Your task to perform on an android device: open app "Reddit" Image 0: 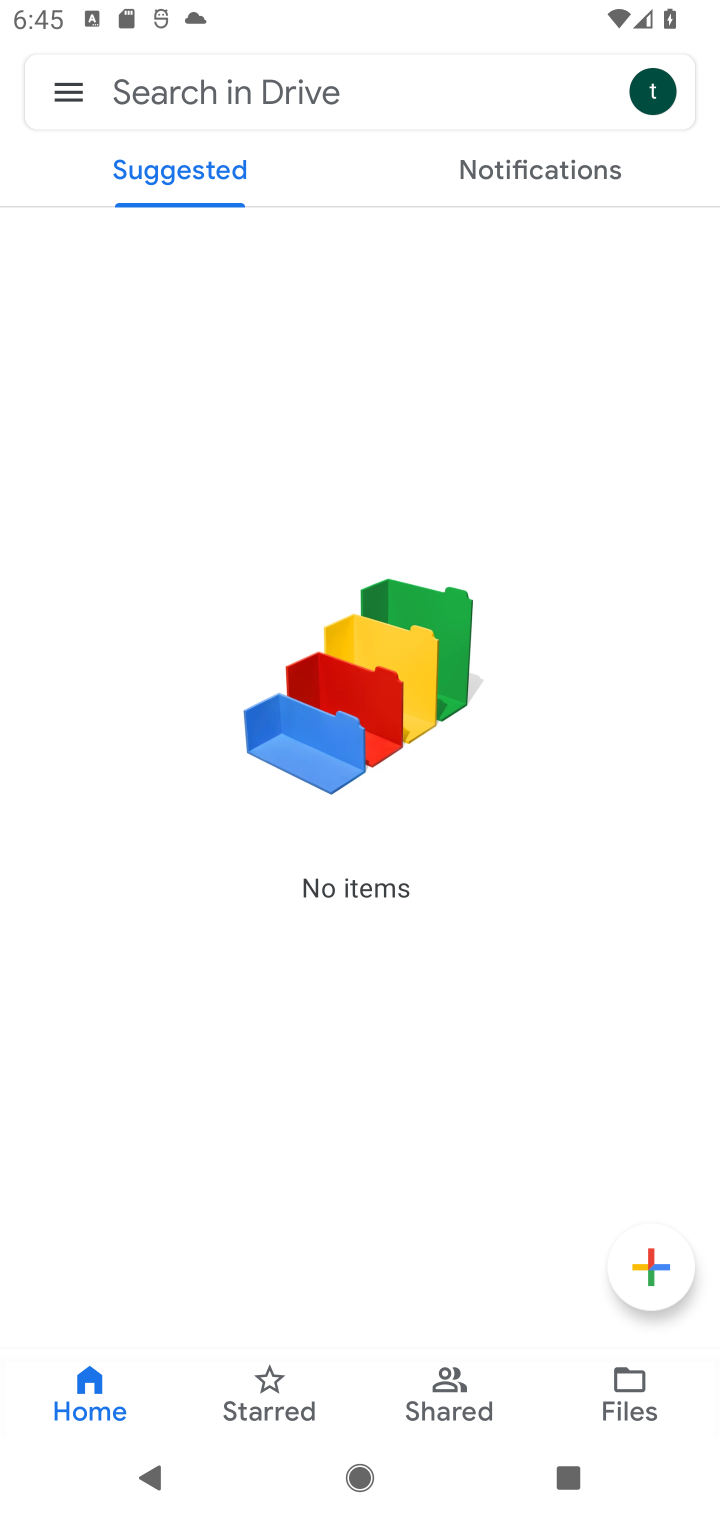
Step 0: press home button
Your task to perform on an android device: open app "Reddit" Image 1: 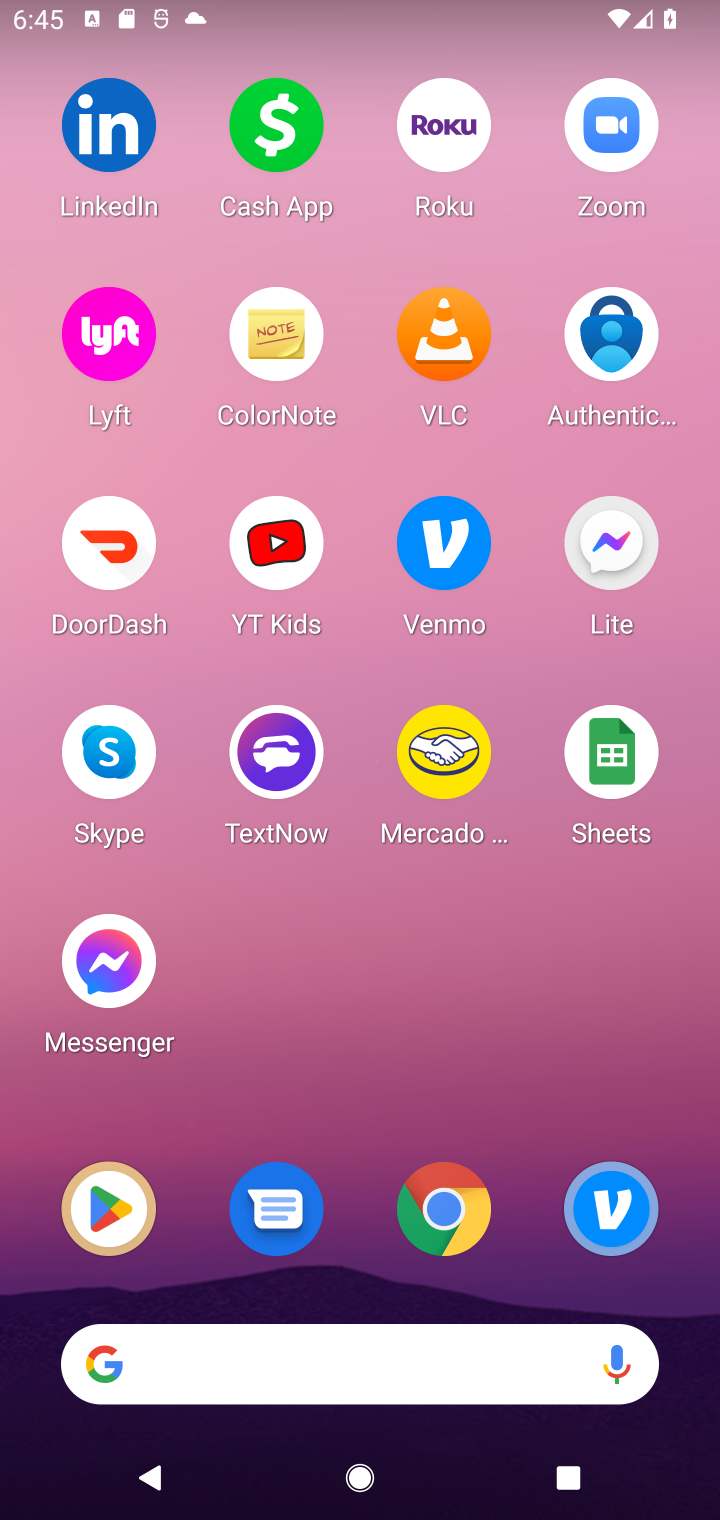
Step 1: click (103, 1196)
Your task to perform on an android device: open app "Reddit" Image 2: 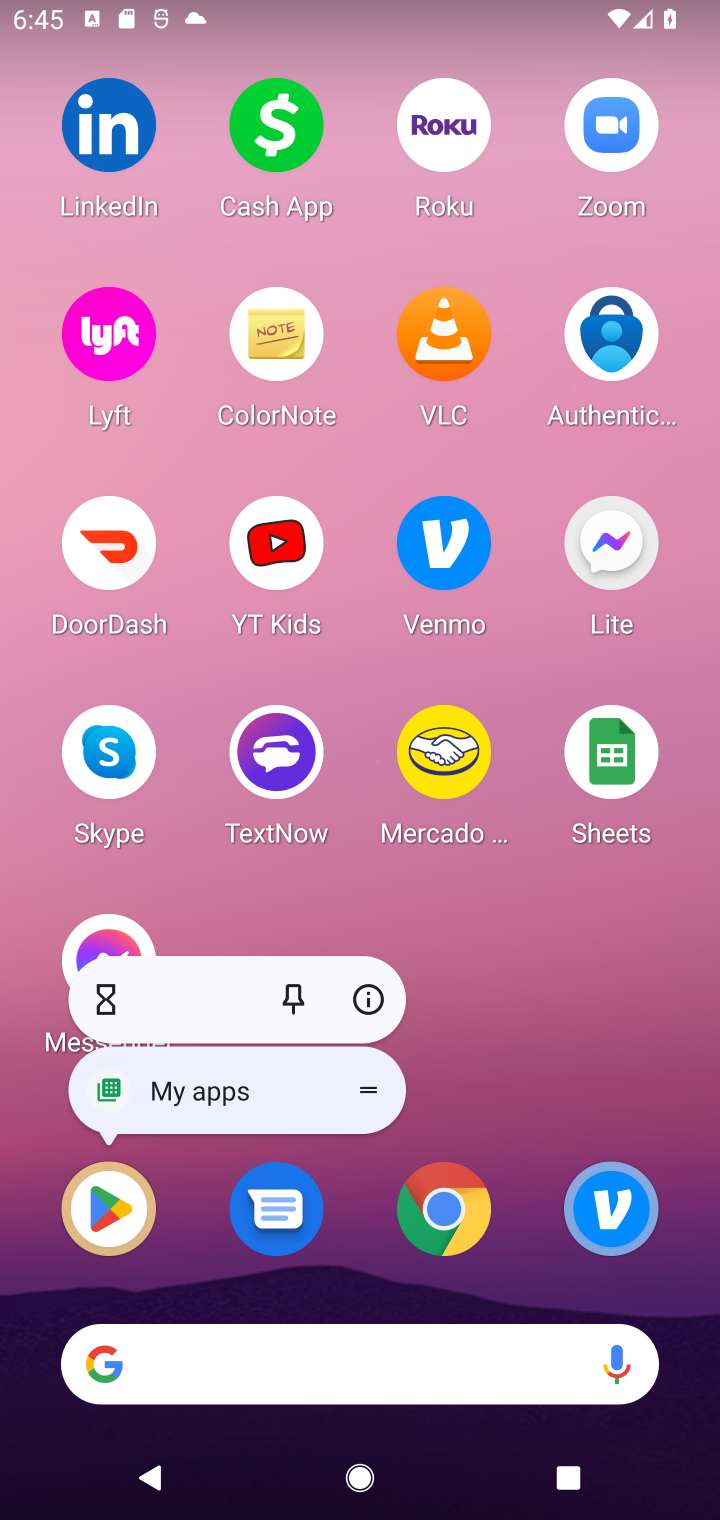
Step 2: click (113, 1214)
Your task to perform on an android device: open app "Reddit" Image 3: 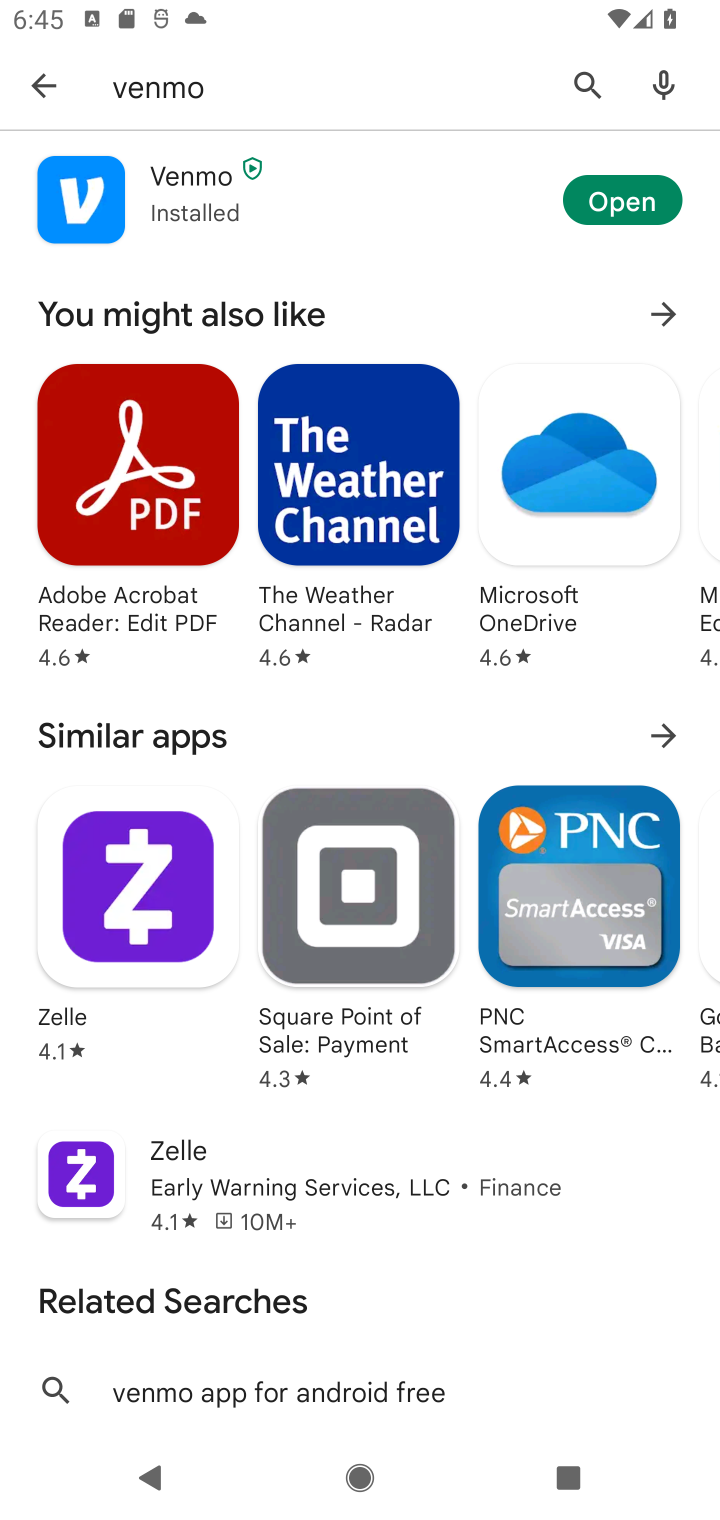
Step 3: click (585, 86)
Your task to perform on an android device: open app "Reddit" Image 4: 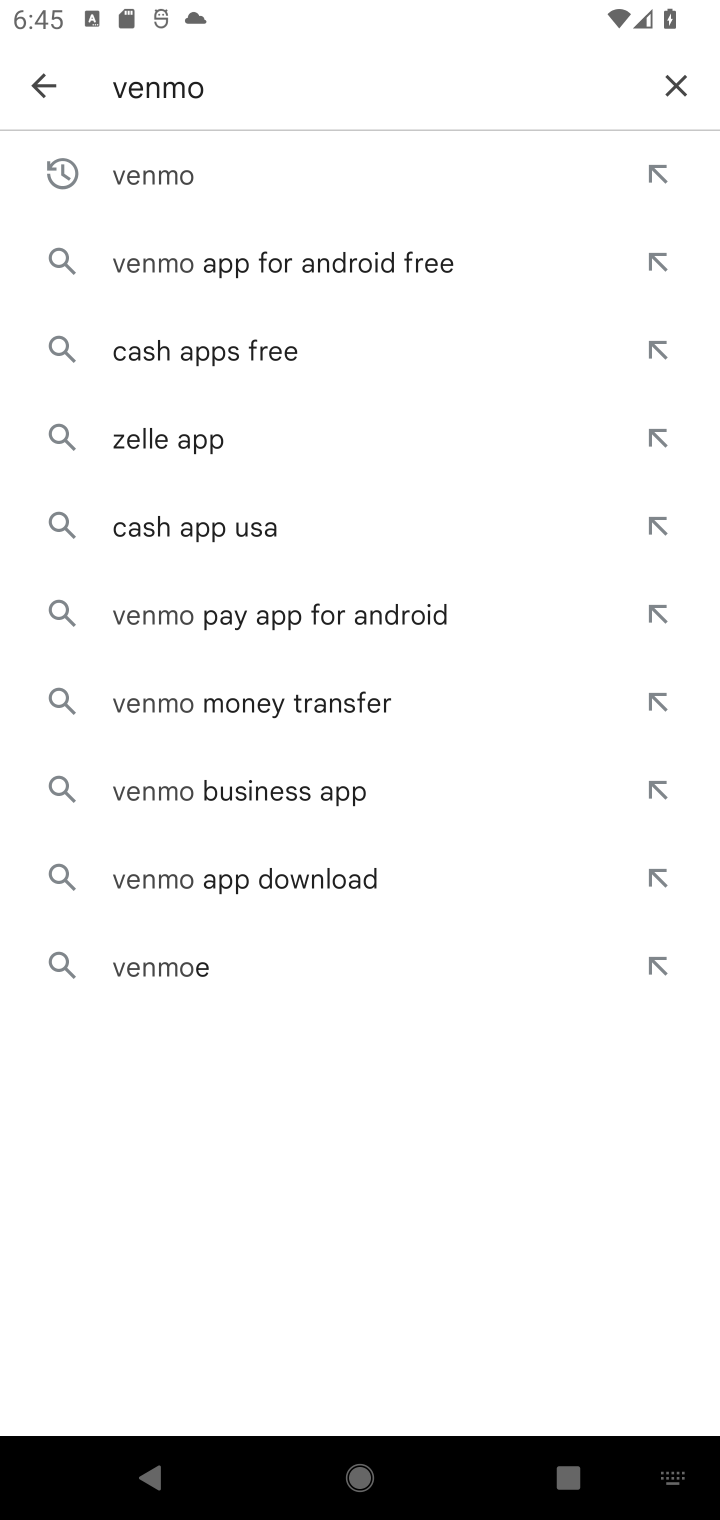
Step 4: click (687, 72)
Your task to perform on an android device: open app "Reddit" Image 5: 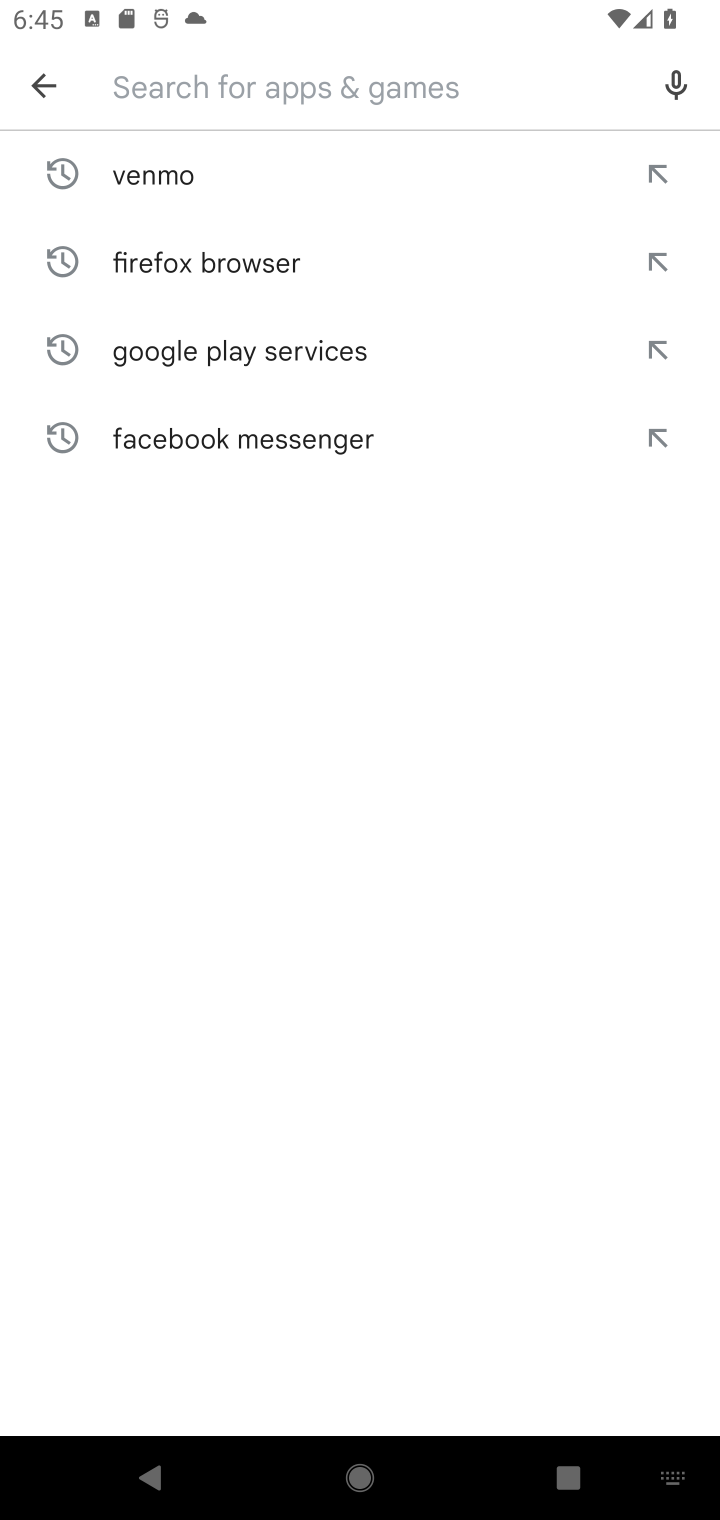
Step 5: type "Reddit"
Your task to perform on an android device: open app "Reddit" Image 6: 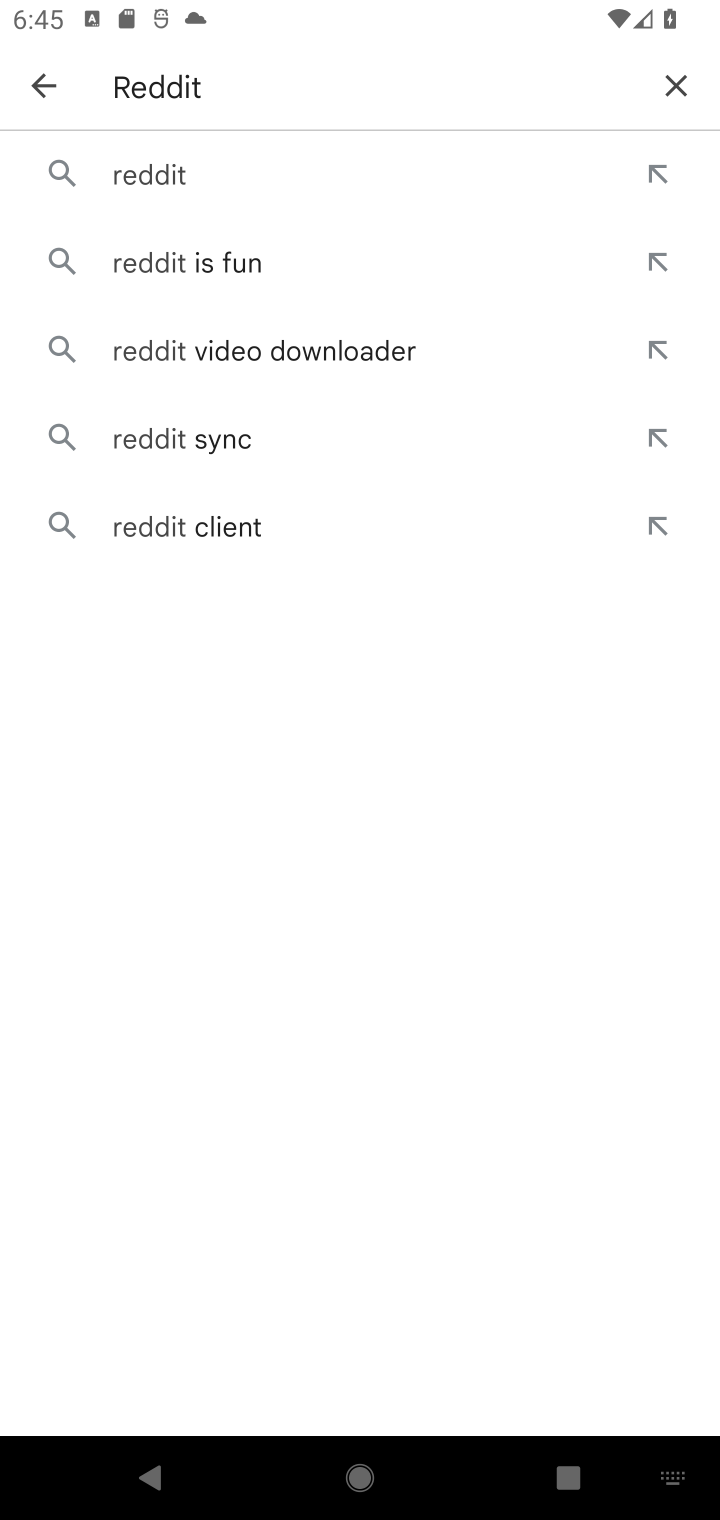
Step 6: click (152, 187)
Your task to perform on an android device: open app "Reddit" Image 7: 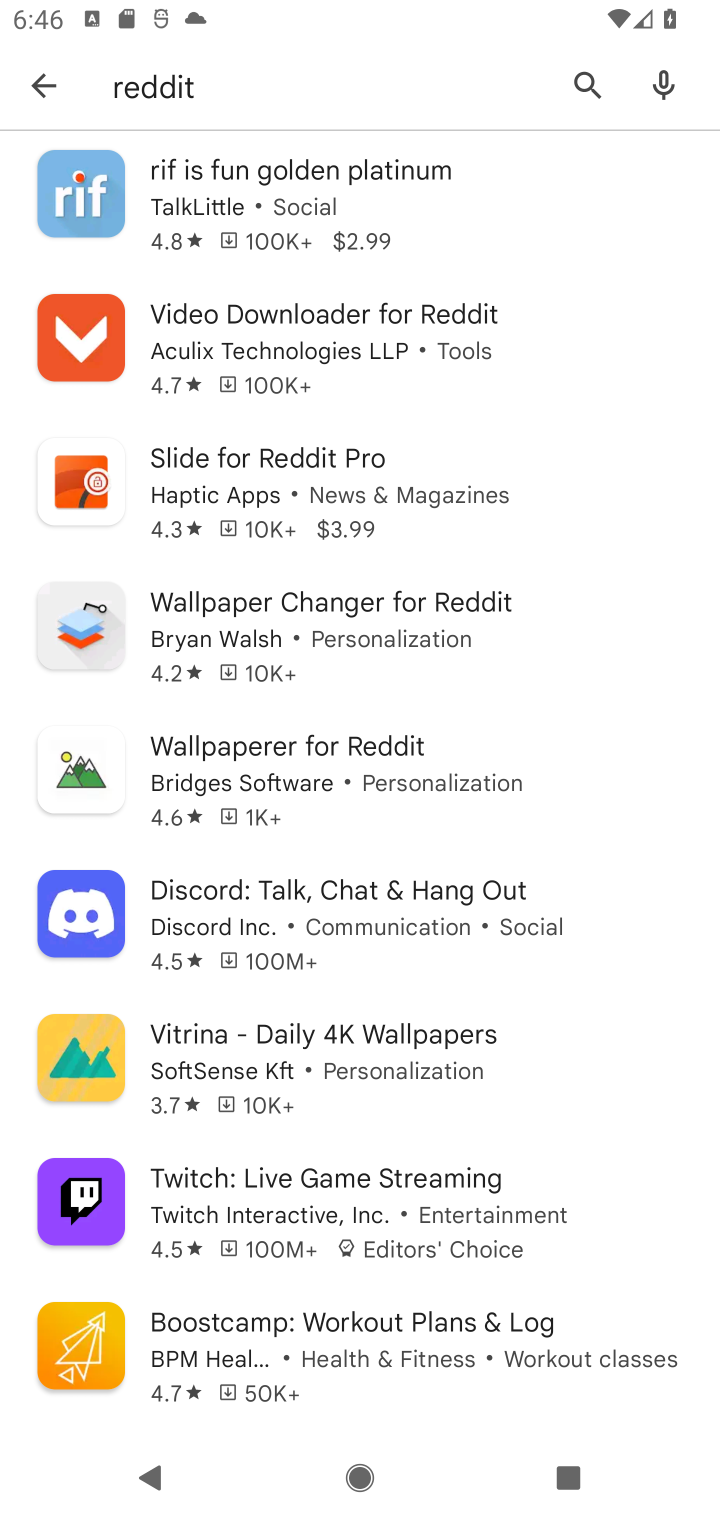
Step 7: task complete